Your task to perform on an android device: Open a new Chrome private tab Image 0: 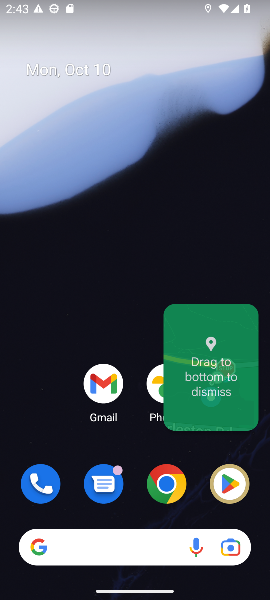
Step 0: drag from (223, 358) to (153, 551)
Your task to perform on an android device: Open a new Chrome private tab Image 1: 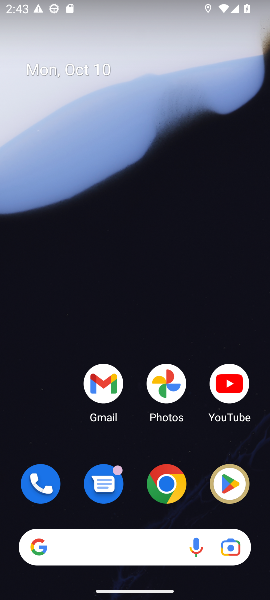
Step 1: click (171, 477)
Your task to perform on an android device: Open a new Chrome private tab Image 2: 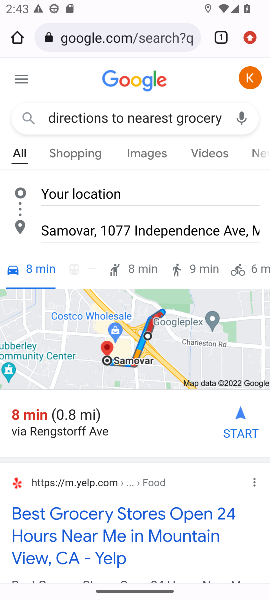
Step 2: click (224, 39)
Your task to perform on an android device: Open a new Chrome private tab Image 3: 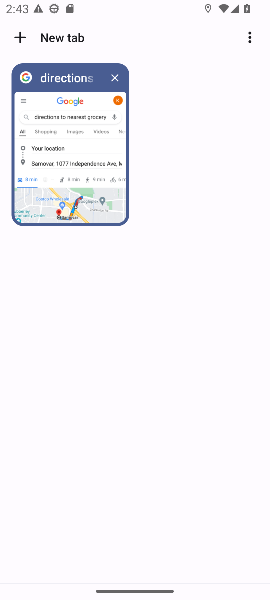
Step 3: click (33, 36)
Your task to perform on an android device: Open a new Chrome private tab Image 4: 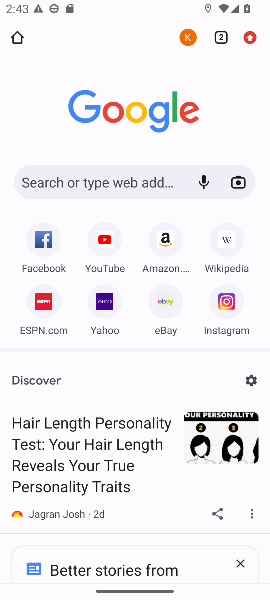
Step 4: task complete